Your task to perform on an android device: toggle sleep mode Image 0: 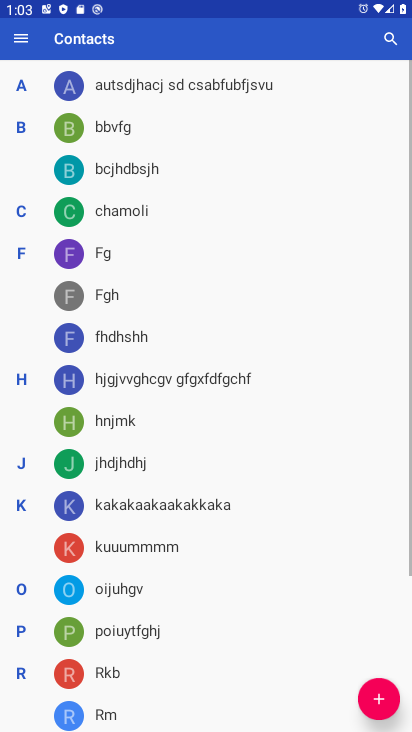
Step 0: drag from (338, 639) to (410, 274)
Your task to perform on an android device: toggle sleep mode Image 1: 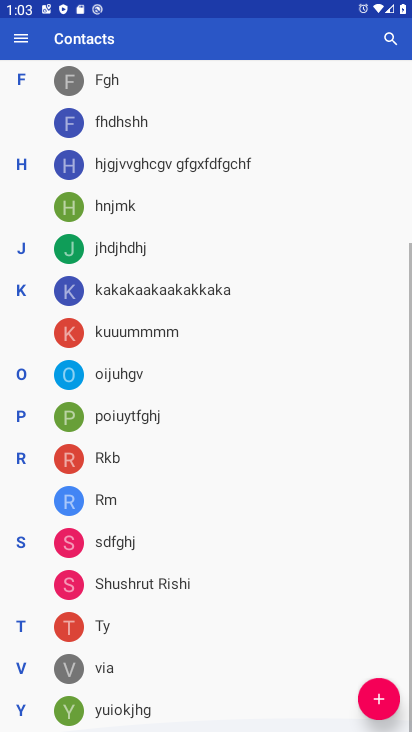
Step 1: press home button
Your task to perform on an android device: toggle sleep mode Image 2: 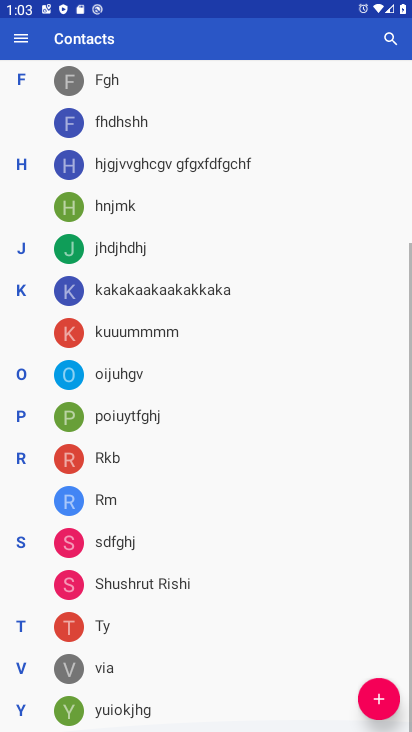
Step 2: click (404, 652)
Your task to perform on an android device: toggle sleep mode Image 3: 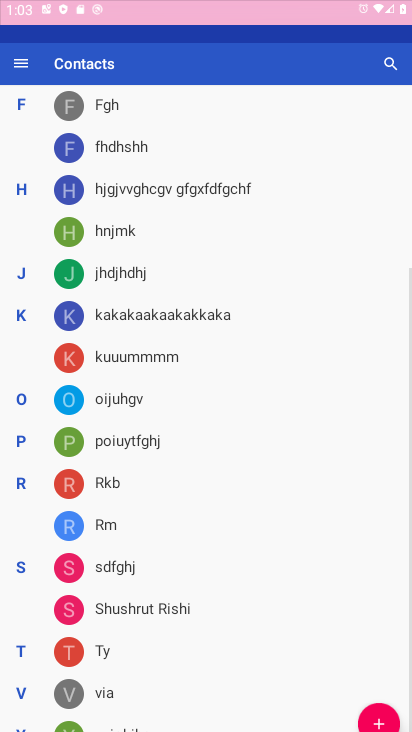
Step 3: drag from (352, 667) to (130, 19)
Your task to perform on an android device: toggle sleep mode Image 4: 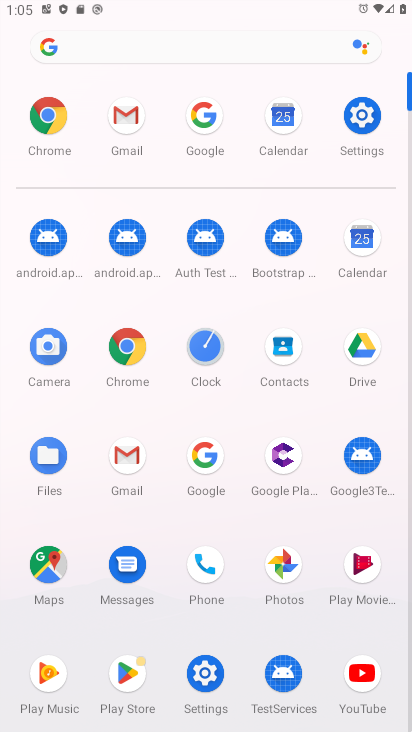
Step 4: click (205, 667)
Your task to perform on an android device: toggle sleep mode Image 5: 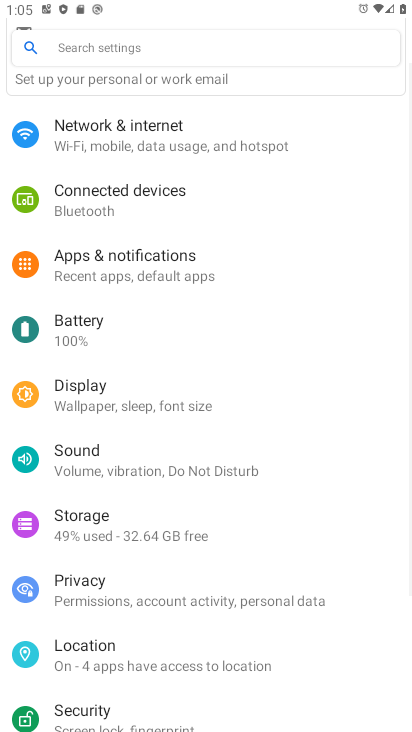
Step 5: task complete